Your task to perform on an android device: Show me productivity apps on the Play Store Image 0: 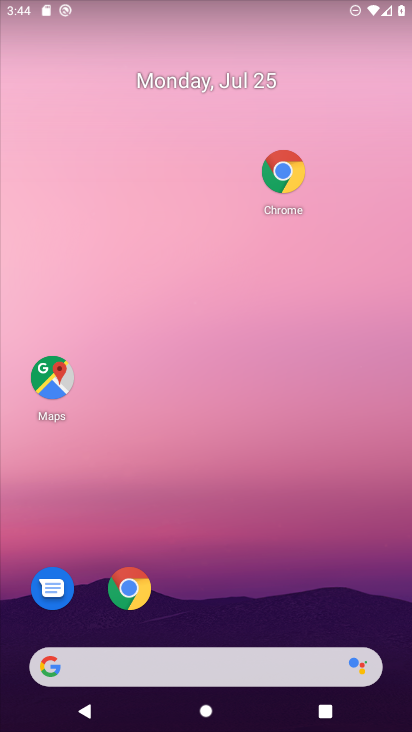
Step 0: drag from (239, 498) to (181, 98)
Your task to perform on an android device: Show me productivity apps on the Play Store Image 1: 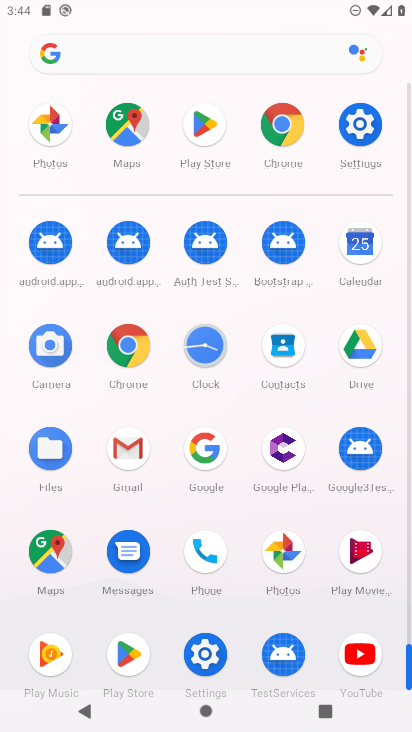
Step 1: click (135, 649)
Your task to perform on an android device: Show me productivity apps on the Play Store Image 2: 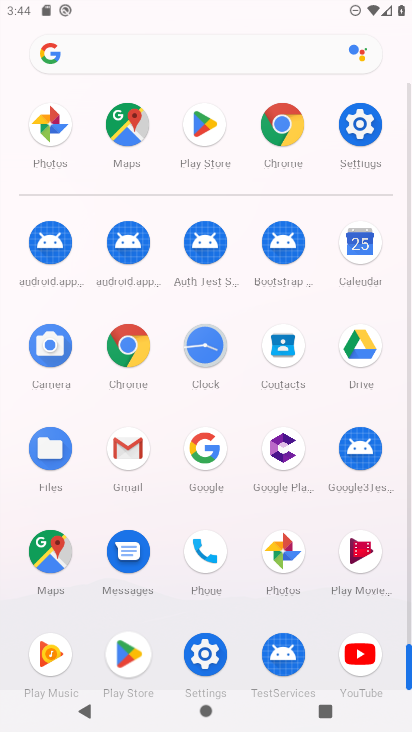
Step 2: click (135, 649)
Your task to perform on an android device: Show me productivity apps on the Play Store Image 3: 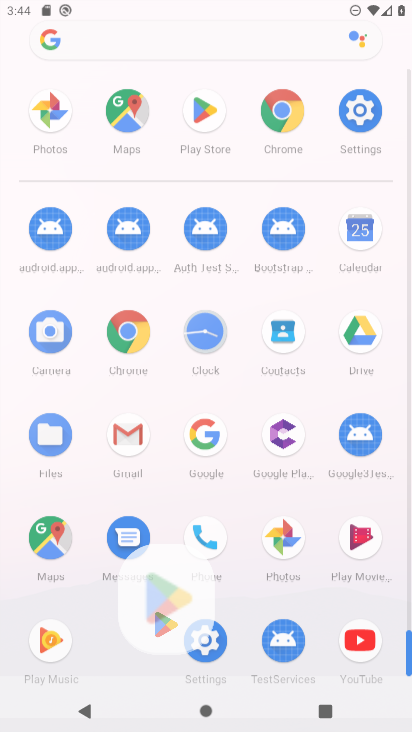
Step 3: click (135, 649)
Your task to perform on an android device: Show me productivity apps on the Play Store Image 4: 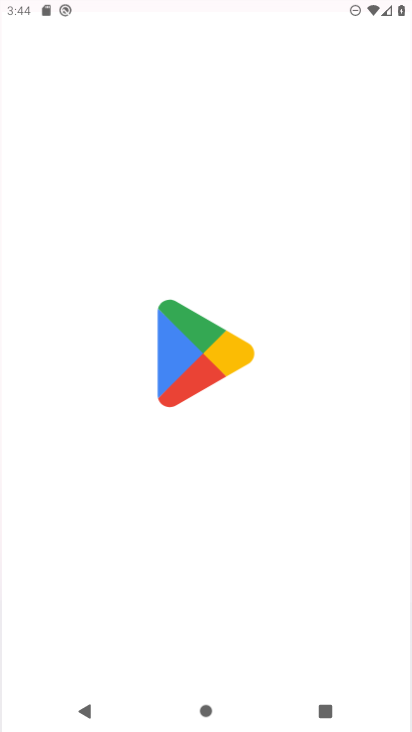
Step 4: click (135, 649)
Your task to perform on an android device: Show me productivity apps on the Play Store Image 5: 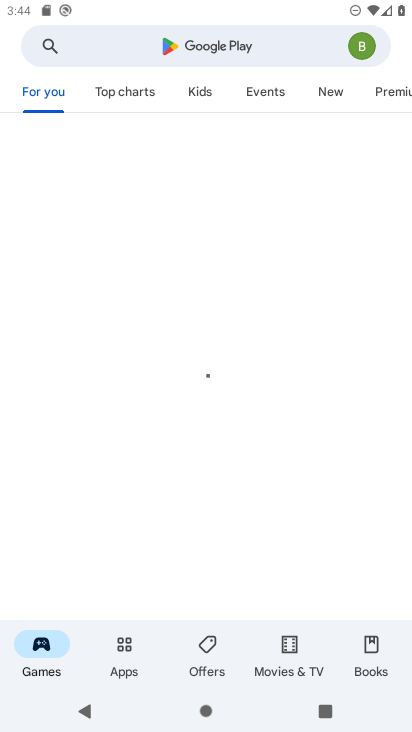
Step 5: click (165, 54)
Your task to perform on an android device: Show me productivity apps on the Play Store Image 6: 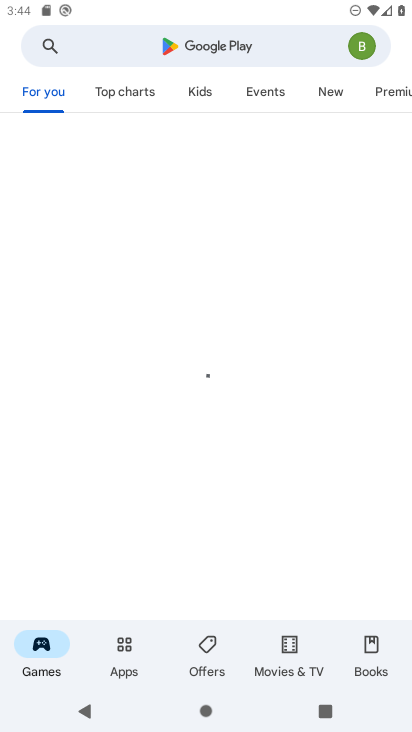
Step 6: click (165, 54)
Your task to perform on an android device: Show me productivity apps on the Play Store Image 7: 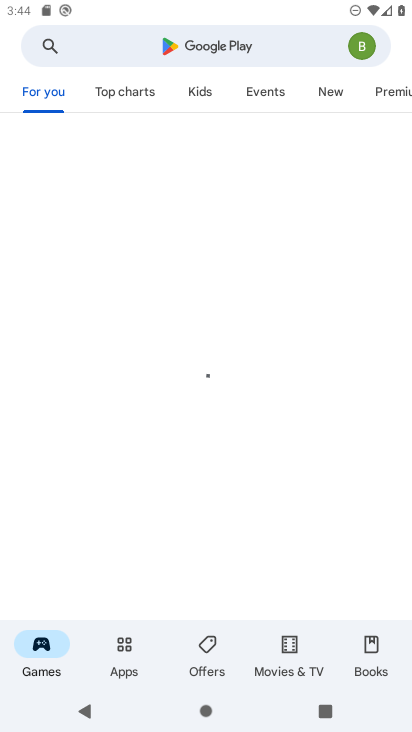
Step 7: click (178, 45)
Your task to perform on an android device: Show me productivity apps on the Play Store Image 8: 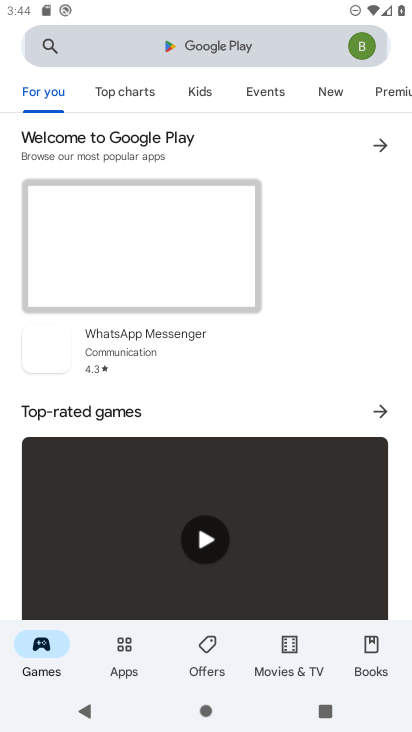
Step 8: click (234, 27)
Your task to perform on an android device: Show me productivity apps on the Play Store Image 9: 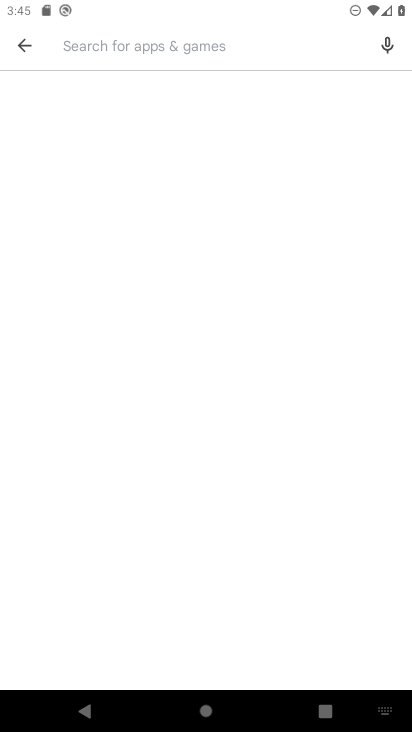
Step 9: type "productivity apps"
Your task to perform on an android device: Show me productivity apps on the Play Store Image 10: 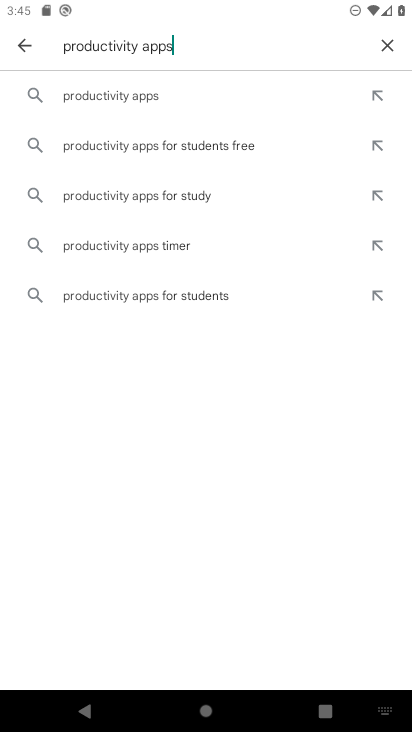
Step 10: click (111, 99)
Your task to perform on an android device: Show me productivity apps on the Play Store Image 11: 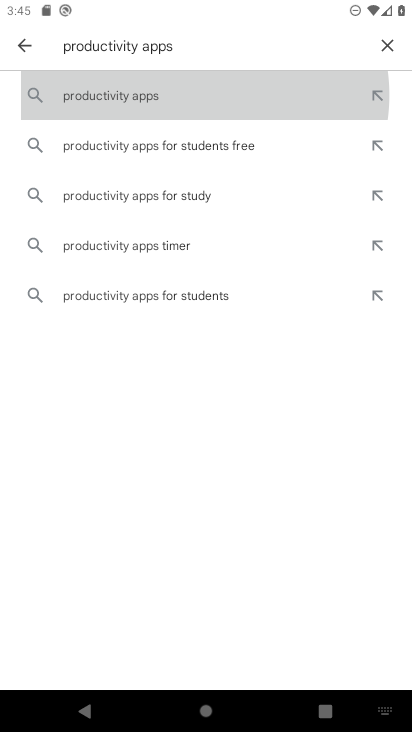
Step 11: click (108, 89)
Your task to perform on an android device: Show me productivity apps on the Play Store Image 12: 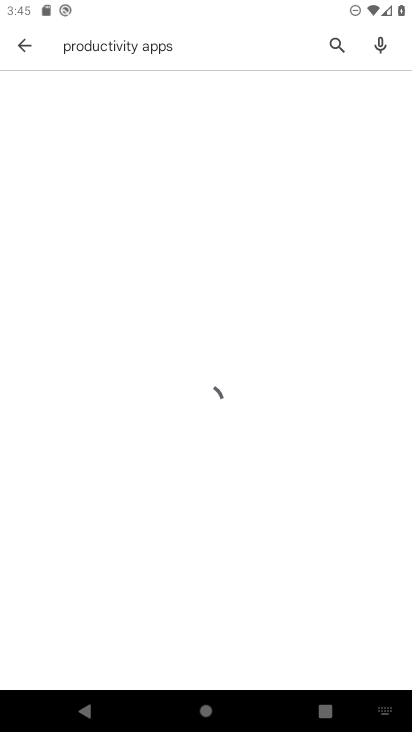
Step 12: click (106, 99)
Your task to perform on an android device: Show me productivity apps on the Play Store Image 13: 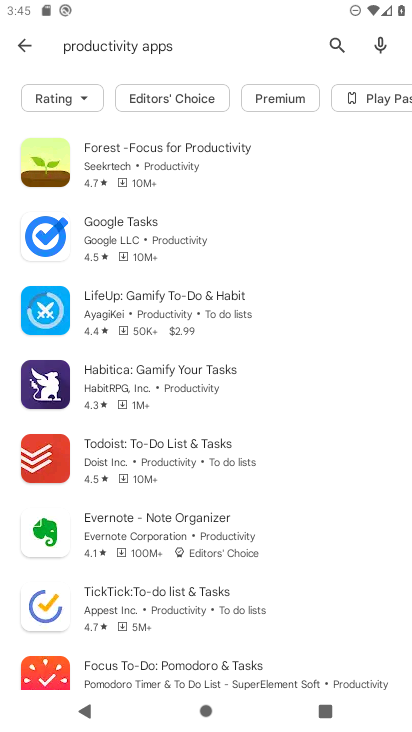
Step 13: task complete